Your task to perform on an android device: toggle priority inbox in the gmail app Image 0: 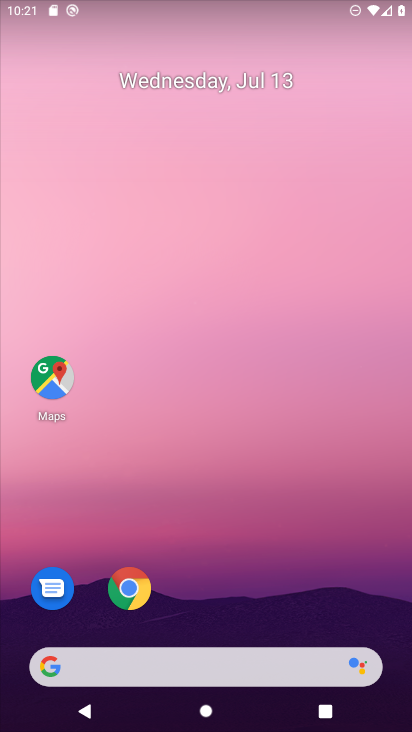
Step 0: drag from (205, 629) to (170, 16)
Your task to perform on an android device: toggle priority inbox in the gmail app Image 1: 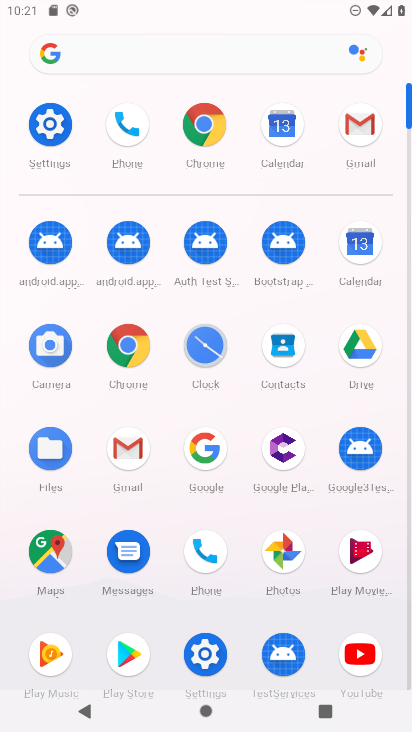
Step 1: click (131, 448)
Your task to perform on an android device: toggle priority inbox in the gmail app Image 2: 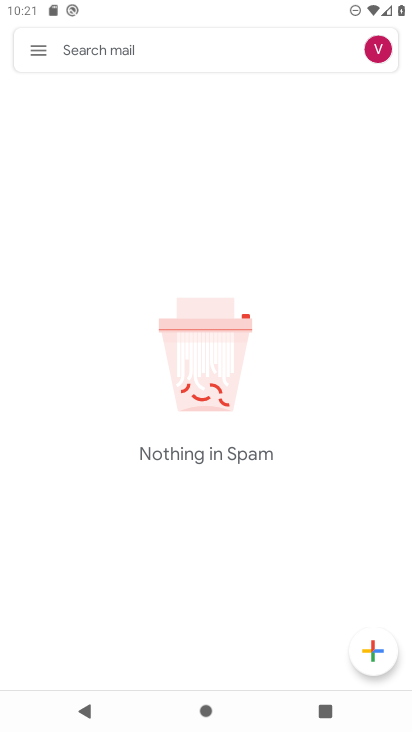
Step 2: click (41, 43)
Your task to perform on an android device: toggle priority inbox in the gmail app Image 3: 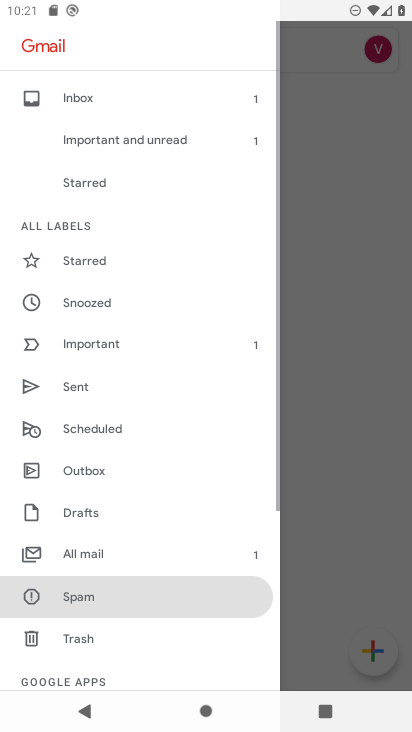
Step 3: drag from (82, 575) to (87, 138)
Your task to perform on an android device: toggle priority inbox in the gmail app Image 4: 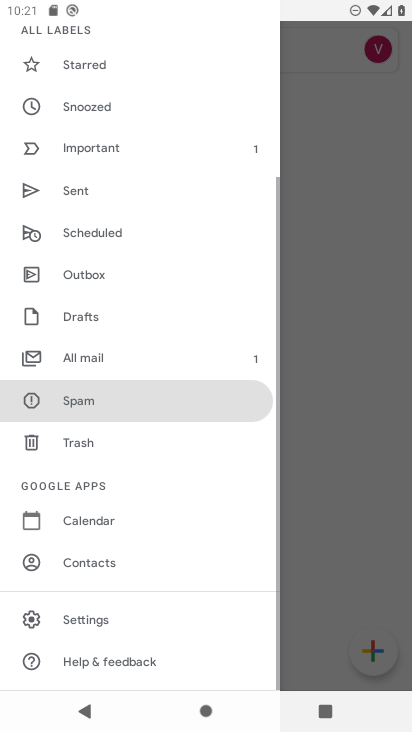
Step 4: click (104, 620)
Your task to perform on an android device: toggle priority inbox in the gmail app Image 5: 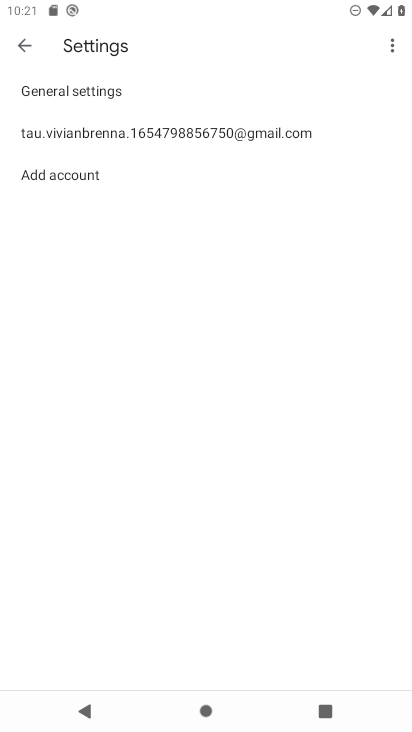
Step 5: click (95, 141)
Your task to perform on an android device: toggle priority inbox in the gmail app Image 6: 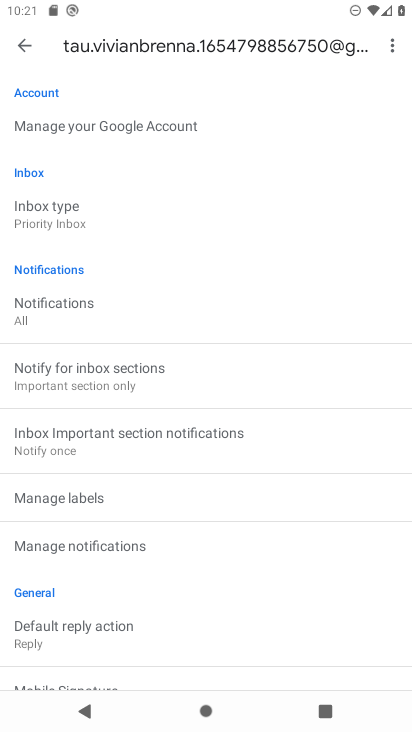
Step 6: click (91, 206)
Your task to perform on an android device: toggle priority inbox in the gmail app Image 7: 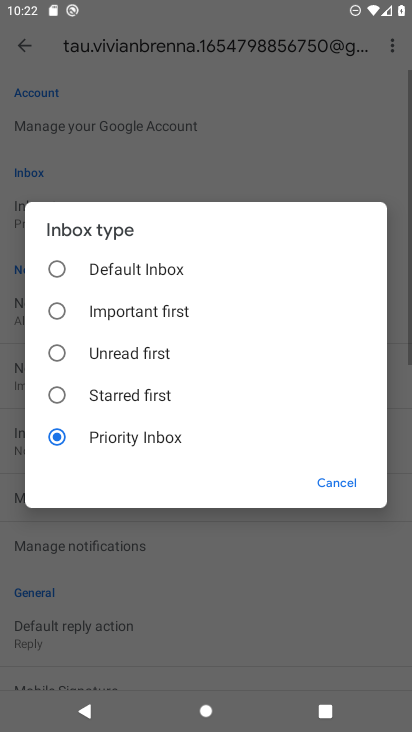
Step 7: click (103, 411)
Your task to perform on an android device: toggle priority inbox in the gmail app Image 8: 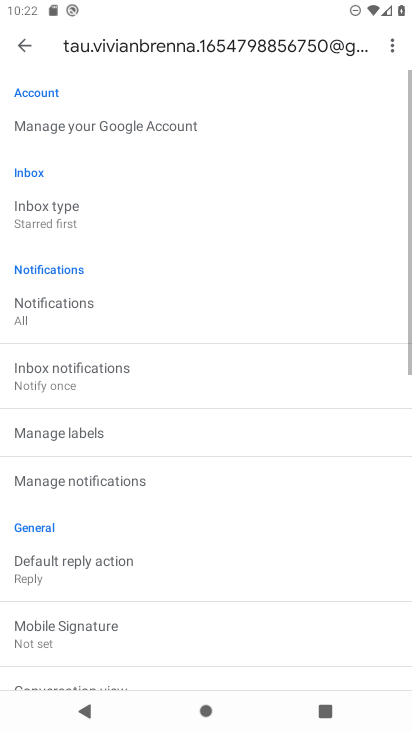
Step 8: task complete